Your task to perform on an android device: open chrome and create a bookmark for the current page Image 0: 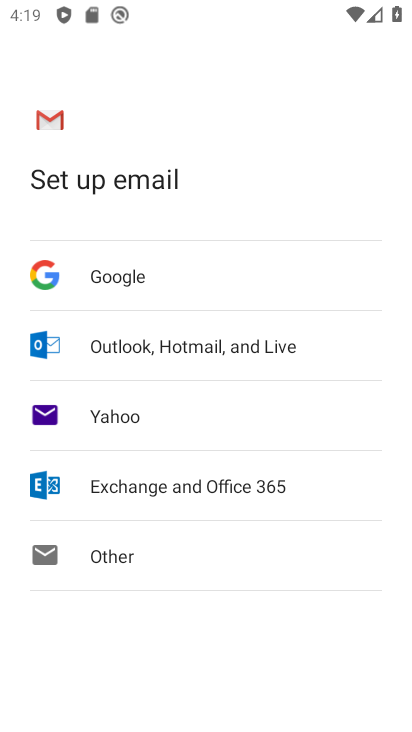
Step 0: press home button
Your task to perform on an android device: open chrome and create a bookmark for the current page Image 1: 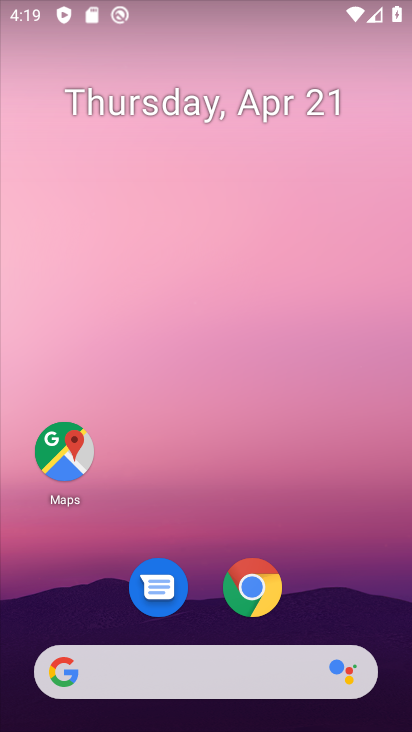
Step 1: drag from (305, 603) to (348, 80)
Your task to perform on an android device: open chrome and create a bookmark for the current page Image 2: 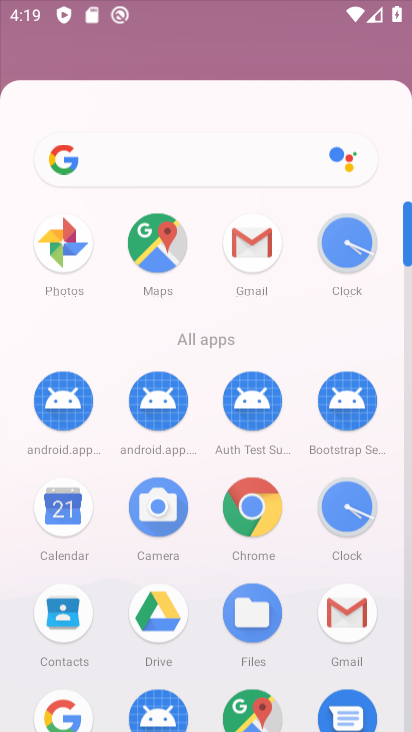
Step 2: click (348, 80)
Your task to perform on an android device: open chrome and create a bookmark for the current page Image 3: 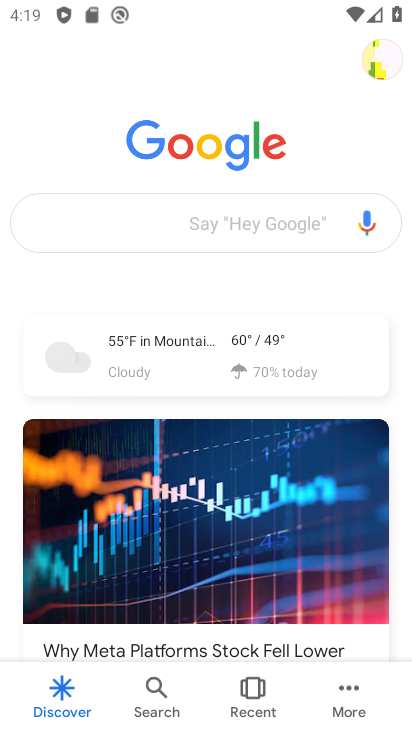
Step 3: press back button
Your task to perform on an android device: open chrome and create a bookmark for the current page Image 4: 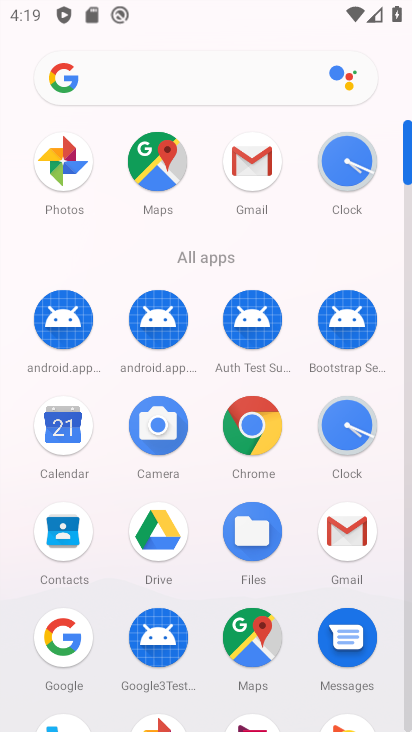
Step 4: click (243, 434)
Your task to perform on an android device: open chrome and create a bookmark for the current page Image 5: 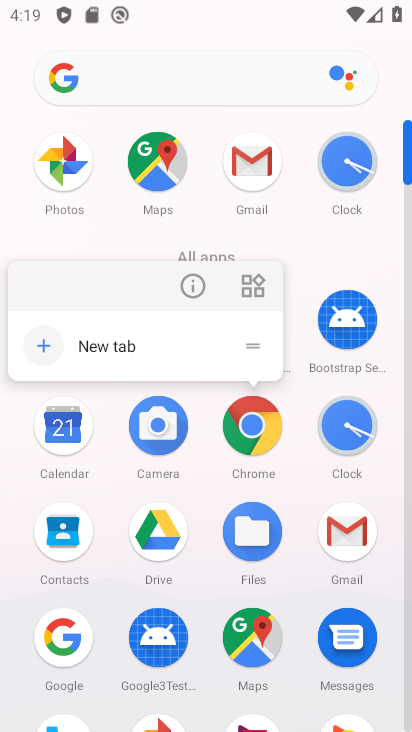
Step 5: click (247, 408)
Your task to perform on an android device: open chrome and create a bookmark for the current page Image 6: 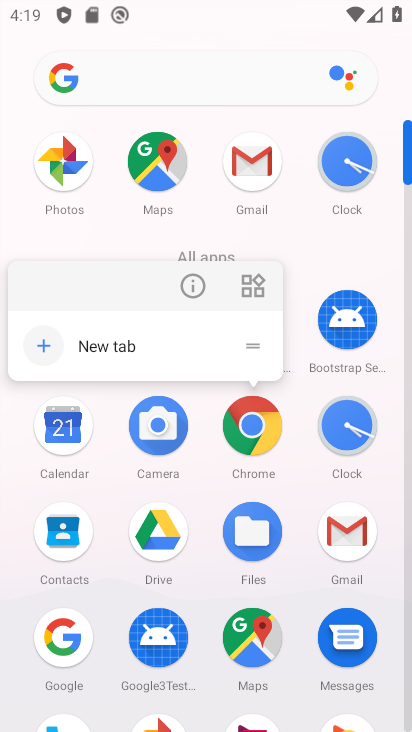
Step 6: click (253, 424)
Your task to perform on an android device: open chrome and create a bookmark for the current page Image 7: 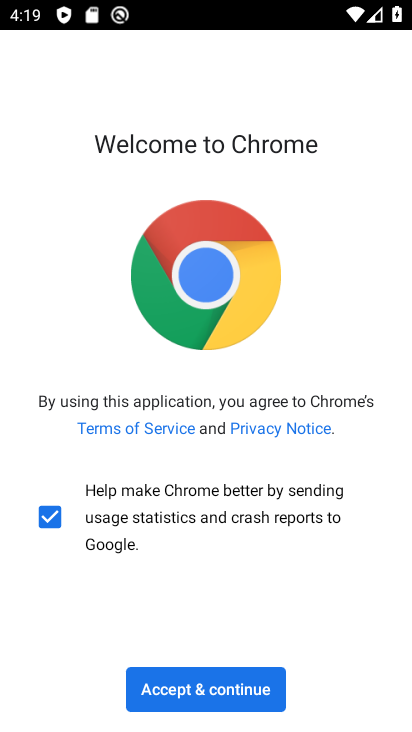
Step 7: click (233, 686)
Your task to perform on an android device: open chrome and create a bookmark for the current page Image 8: 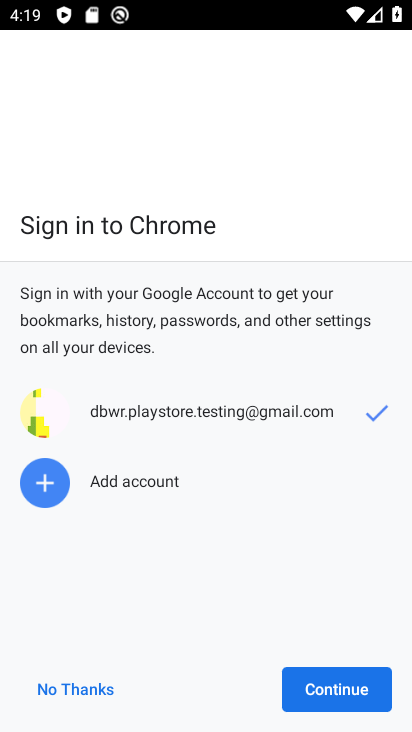
Step 8: click (338, 684)
Your task to perform on an android device: open chrome and create a bookmark for the current page Image 9: 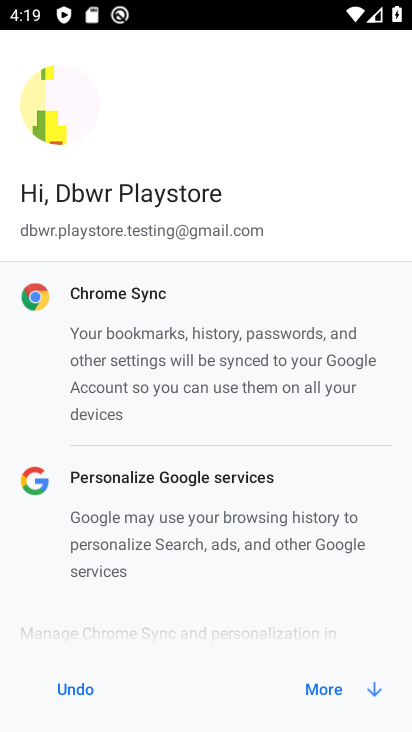
Step 9: click (334, 689)
Your task to perform on an android device: open chrome and create a bookmark for the current page Image 10: 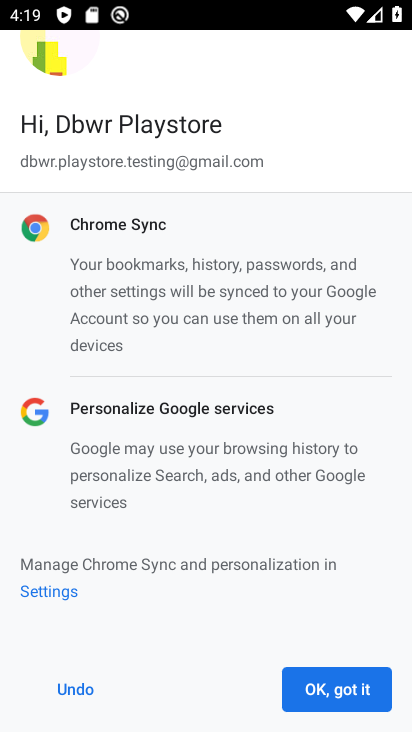
Step 10: click (334, 689)
Your task to perform on an android device: open chrome and create a bookmark for the current page Image 11: 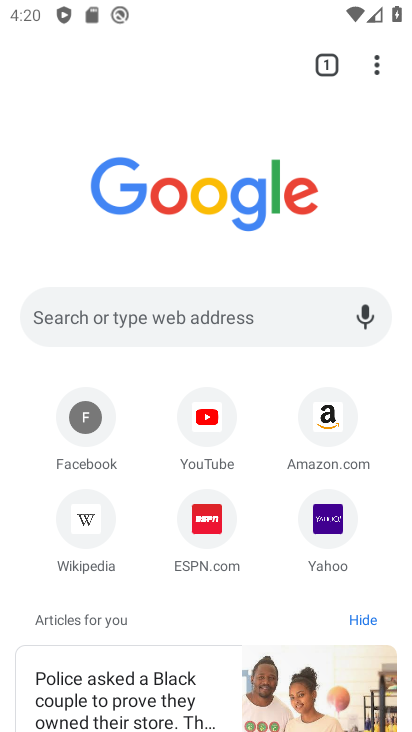
Step 11: click (373, 61)
Your task to perform on an android device: open chrome and create a bookmark for the current page Image 12: 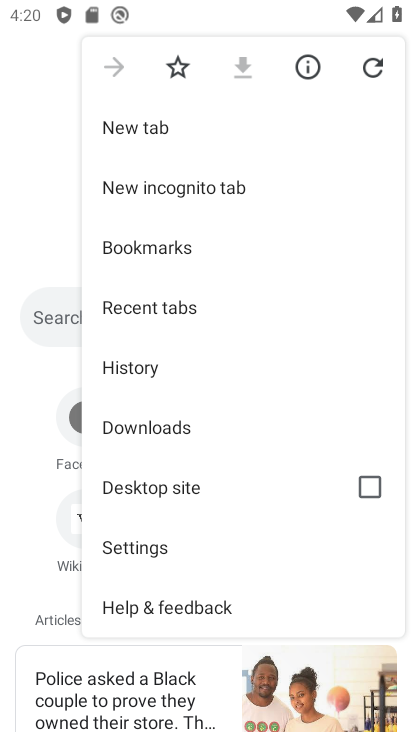
Step 12: click (175, 68)
Your task to perform on an android device: open chrome and create a bookmark for the current page Image 13: 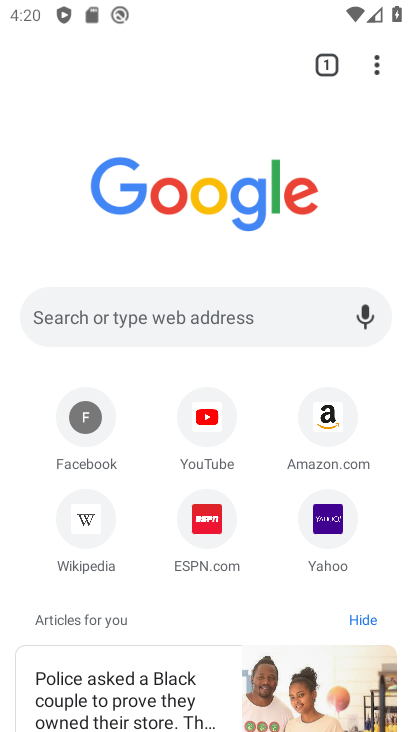
Step 13: task complete